Your task to perform on an android device: choose inbox layout in the gmail app Image 0: 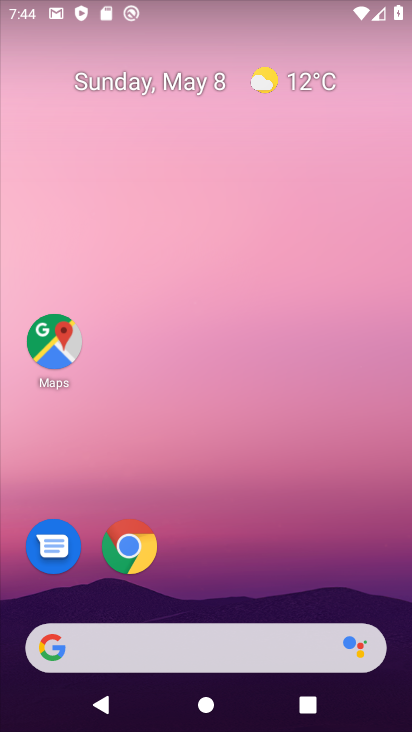
Step 0: drag from (389, 640) to (372, 44)
Your task to perform on an android device: choose inbox layout in the gmail app Image 1: 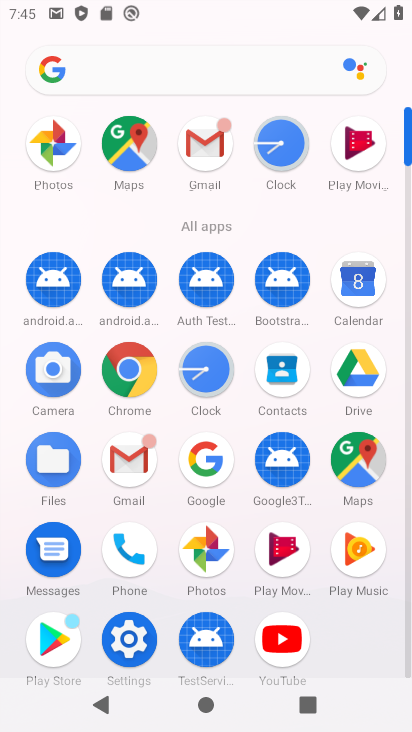
Step 1: click (127, 458)
Your task to perform on an android device: choose inbox layout in the gmail app Image 2: 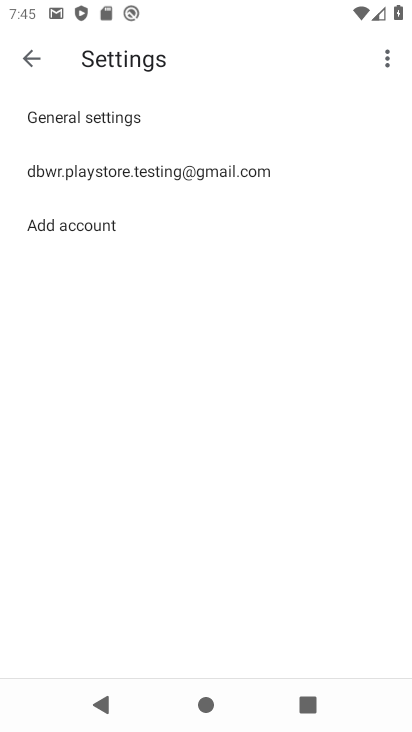
Step 2: click (29, 63)
Your task to perform on an android device: choose inbox layout in the gmail app Image 3: 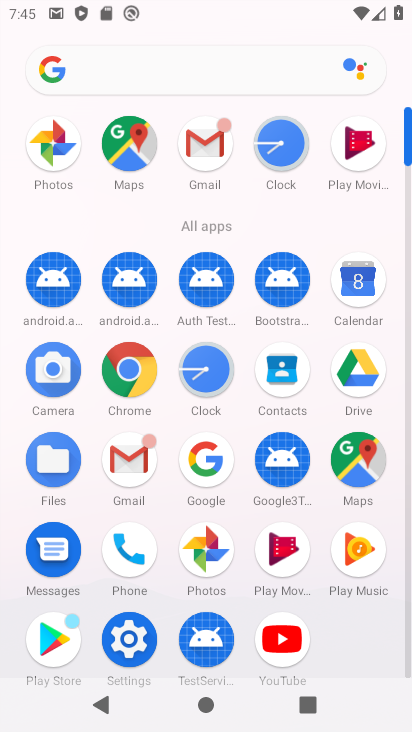
Step 3: click (132, 460)
Your task to perform on an android device: choose inbox layout in the gmail app Image 4: 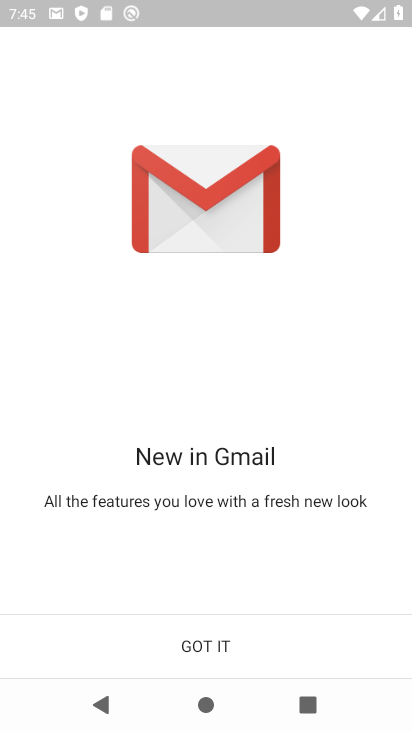
Step 4: click (185, 642)
Your task to perform on an android device: choose inbox layout in the gmail app Image 5: 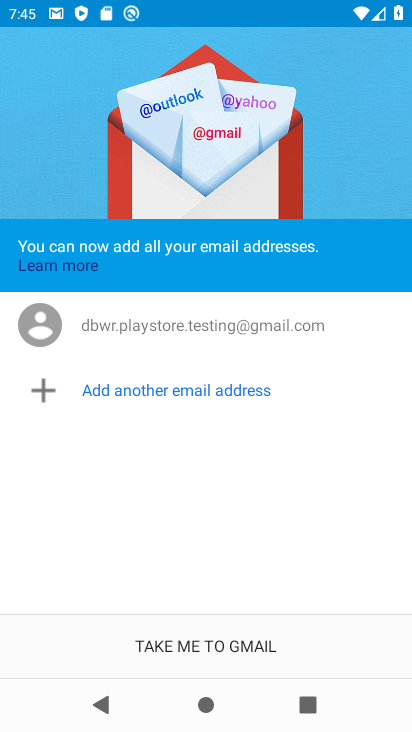
Step 5: click (187, 648)
Your task to perform on an android device: choose inbox layout in the gmail app Image 6: 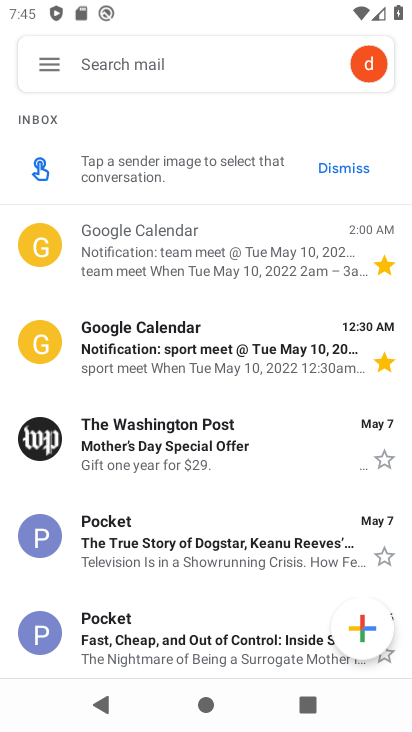
Step 6: click (50, 66)
Your task to perform on an android device: choose inbox layout in the gmail app Image 7: 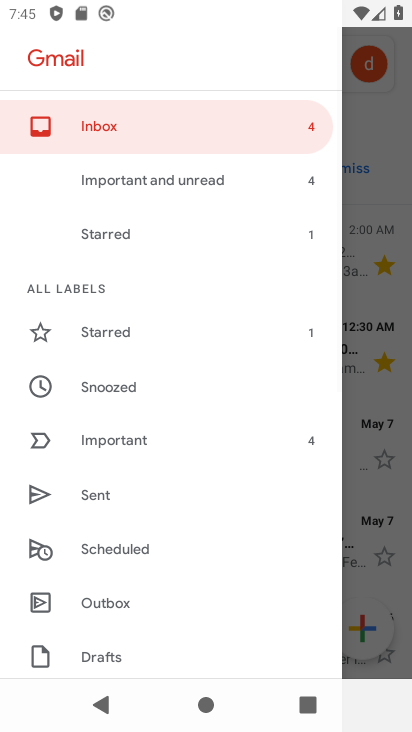
Step 7: click (94, 129)
Your task to perform on an android device: choose inbox layout in the gmail app Image 8: 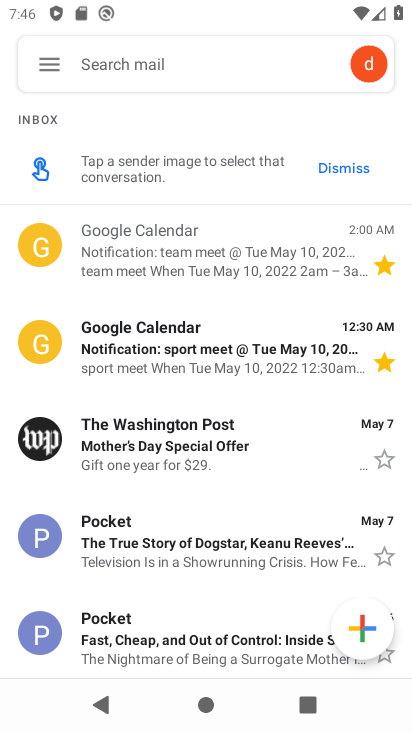
Step 8: click (42, 65)
Your task to perform on an android device: choose inbox layout in the gmail app Image 9: 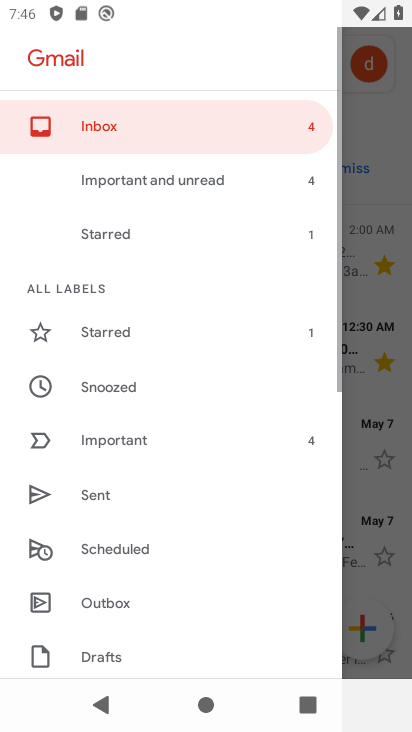
Step 9: drag from (235, 625) to (242, 341)
Your task to perform on an android device: choose inbox layout in the gmail app Image 10: 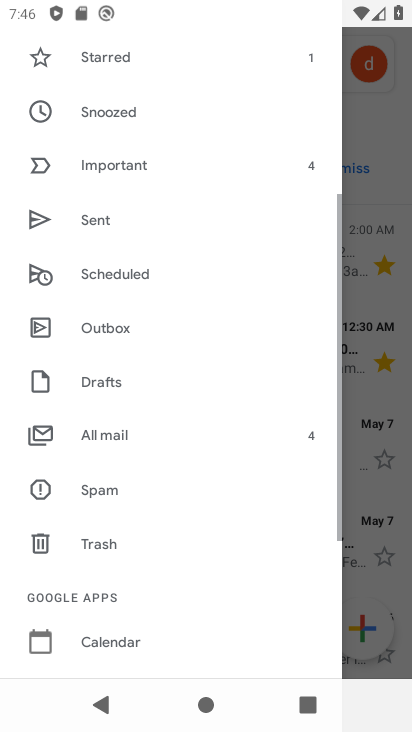
Step 10: drag from (216, 614) to (232, 298)
Your task to perform on an android device: choose inbox layout in the gmail app Image 11: 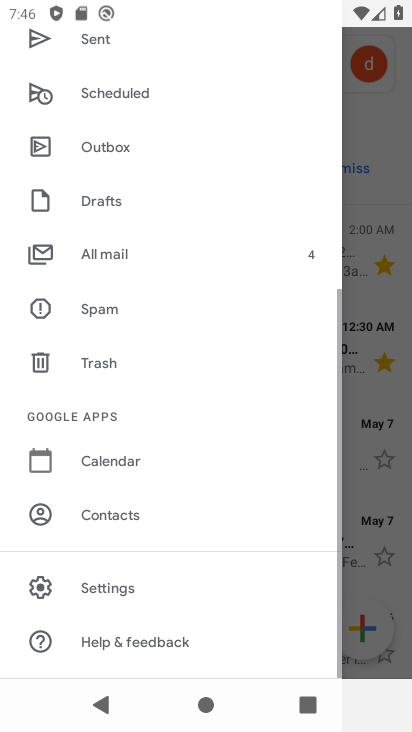
Step 11: click (95, 584)
Your task to perform on an android device: choose inbox layout in the gmail app Image 12: 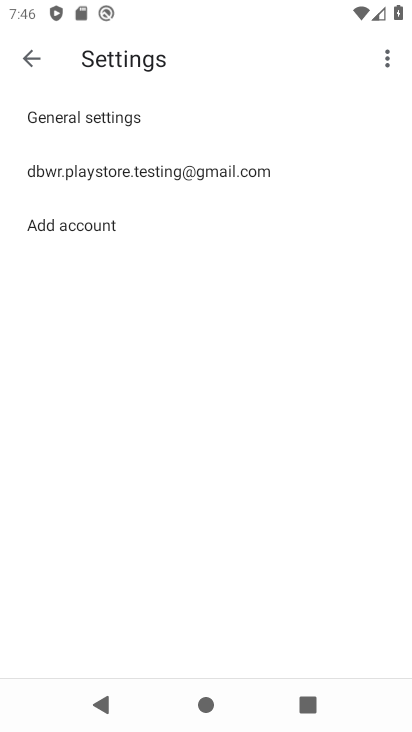
Step 12: click (77, 178)
Your task to perform on an android device: choose inbox layout in the gmail app Image 13: 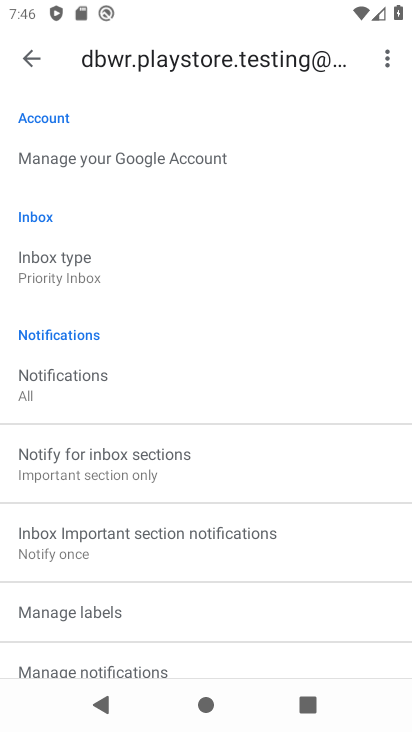
Step 13: click (75, 276)
Your task to perform on an android device: choose inbox layout in the gmail app Image 14: 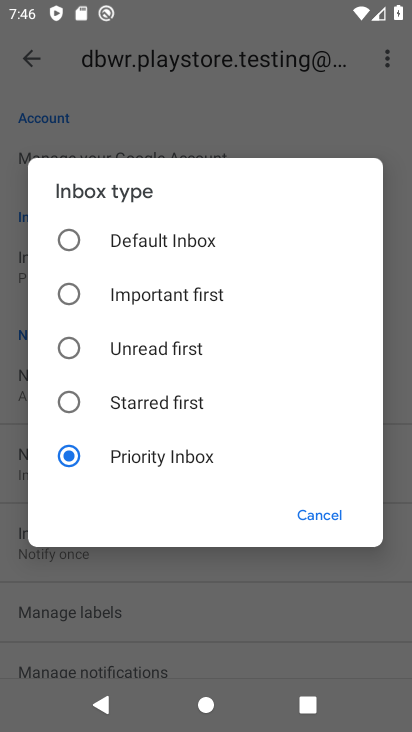
Step 14: click (81, 246)
Your task to perform on an android device: choose inbox layout in the gmail app Image 15: 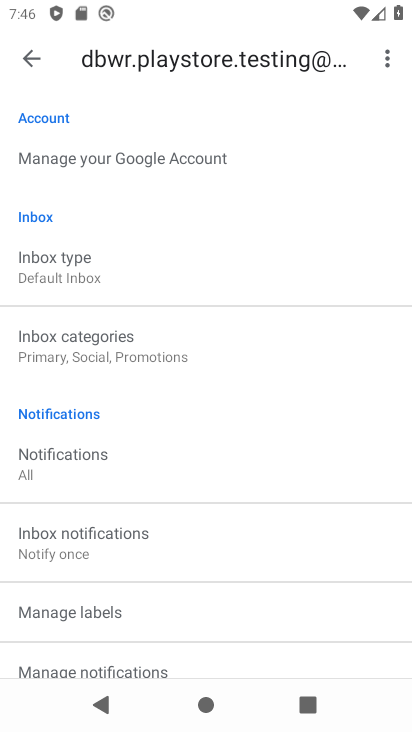
Step 15: task complete